Your task to perform on an android device: Open wifi settings Image 0: 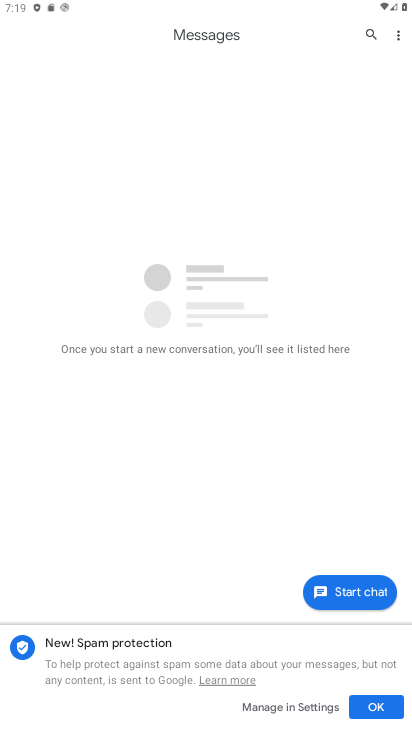
Step 0: press home button
Your task to perform on an android device: Open wifi settings Image 1: 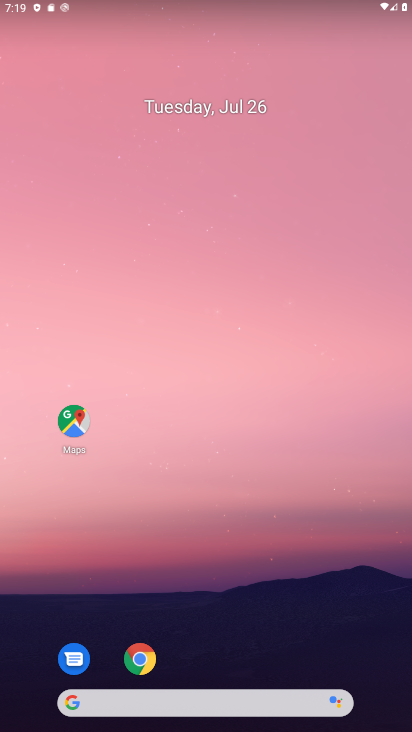
Step 1: drag from (224, 675) to (269, 53)
Your task to perform on an android device: Open wifi settings Image 2: 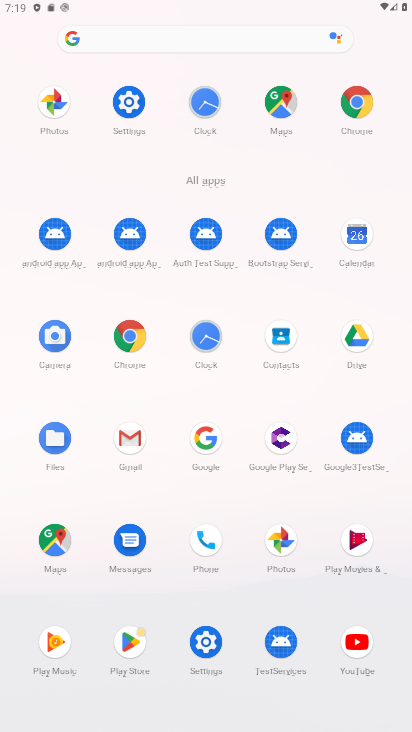
Step 2: click (134, 106)
Your task to perform on an android device: Open wifi settings Image 3: 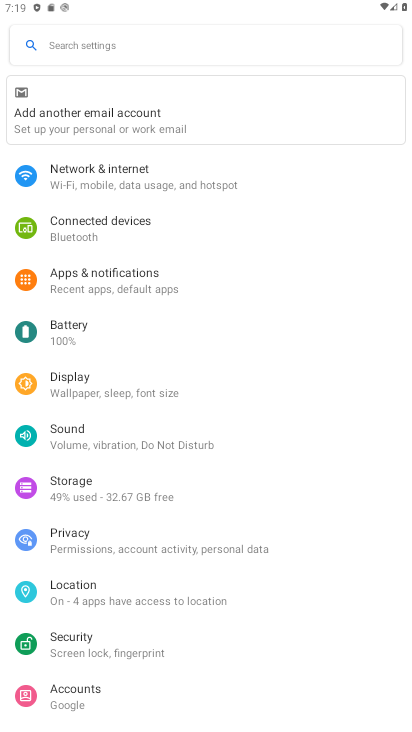
Step 3: click (134, 106)
Your task to perform on an android device: Open wifi settings Image 4: 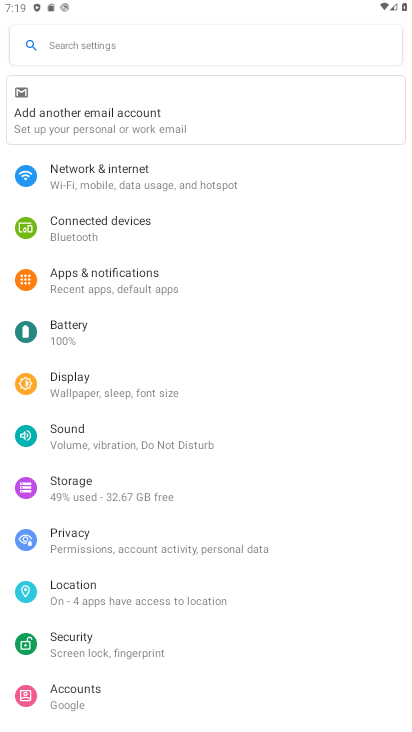
Step 4: click (134, 106)
Your task to perform on an android device: Open wifi settings Image 5: 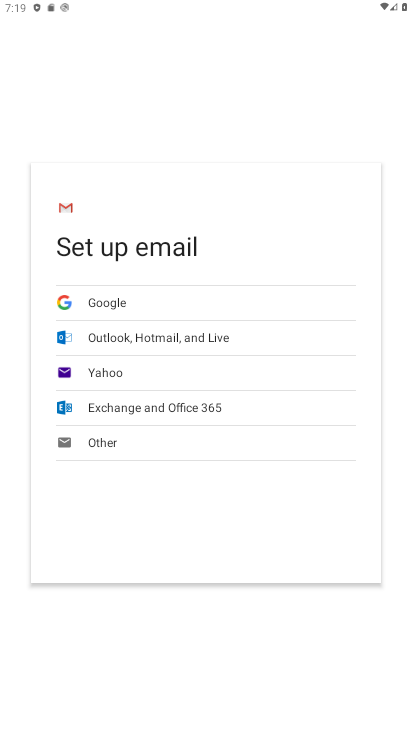
Step 5: press back button
Your task to perform on an android device: Open wifi settings Image 6: 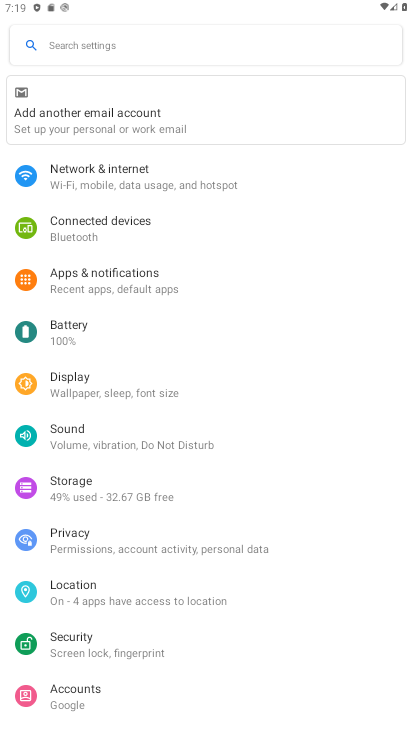
Step 6: click (195, 180)
Your task to perform on an android device: Open wifi settings Image 7: 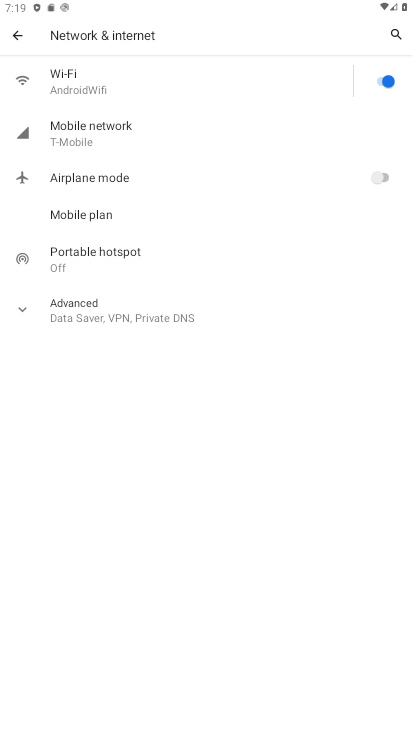
Step 7: click (99, 66)
Your task to perform on an android device: Open wifi settings Image 8: 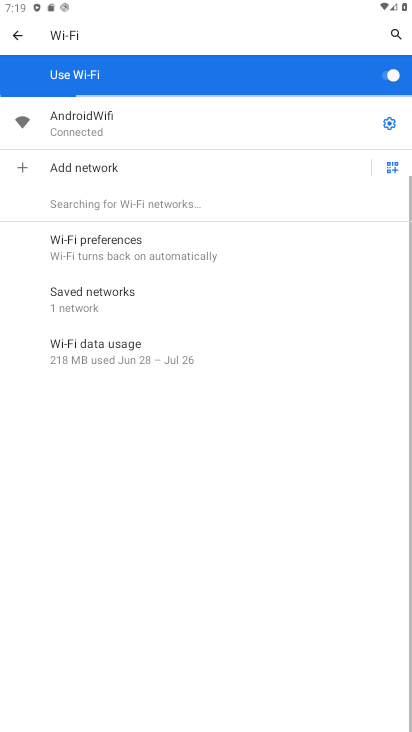
Step 8: task complete